Your task to perform on an android device: Open the Play Movies app and select the watchlist tab. Image 0: 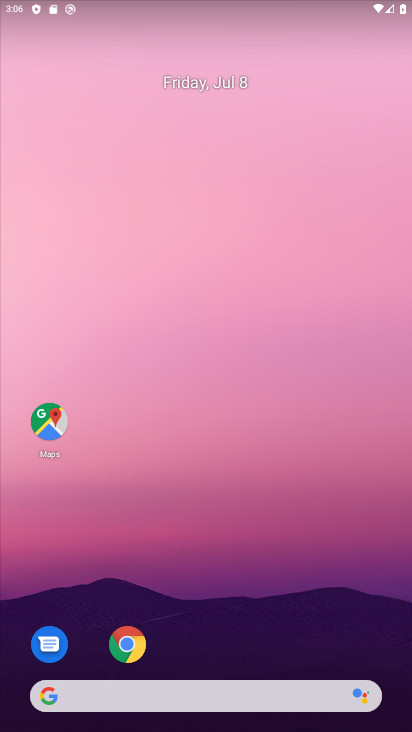
Step 0: drag from (4, 695) to (186, 10)
Your task to perform on an android device: Open the Play Movies app and select the watchlist tab. Image 1: 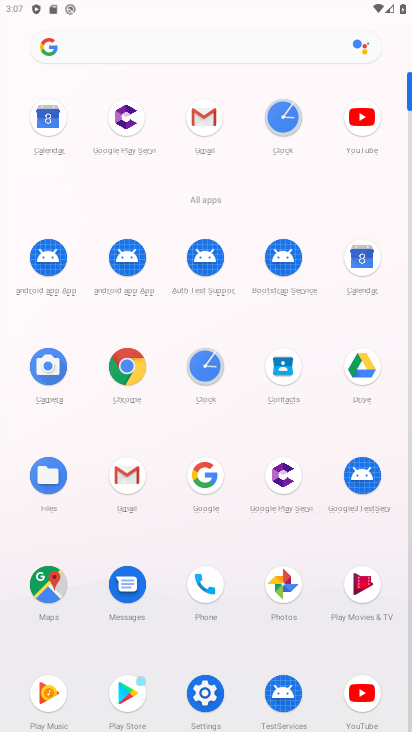
Step 1: click (360, 610)
Your task to perform on an android device: Open the Play Movies app and select the watchlist tab. Image 2: 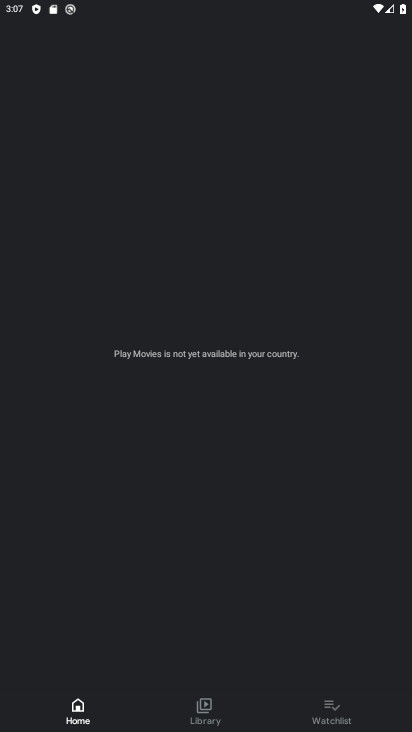
Step 2: task complete